Your task to perform on an android device: toggle javascript in the chrome app Image 0: 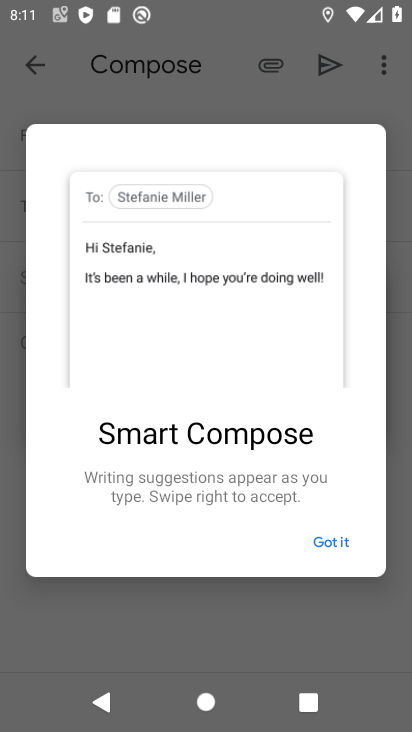
Step 0: press home button
Your task to perform on an android device: toggle javascript in the chrome app Image 1: 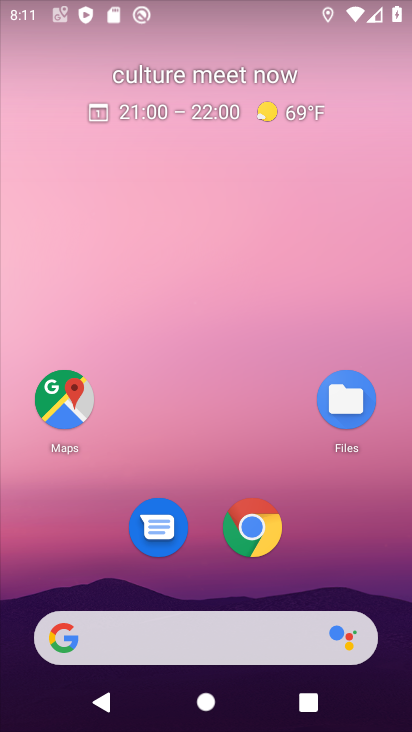
Step 1: click (248, 535)
Your task to perform on an android device: toggle javascript in the chrome app Image 2: 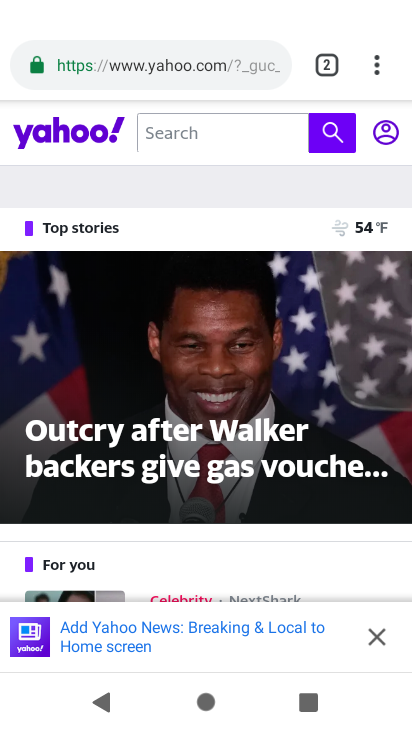
Step 2: click (369, 66)
Your task to perform on an android device: toggle javascript in the chrome app Image 3: 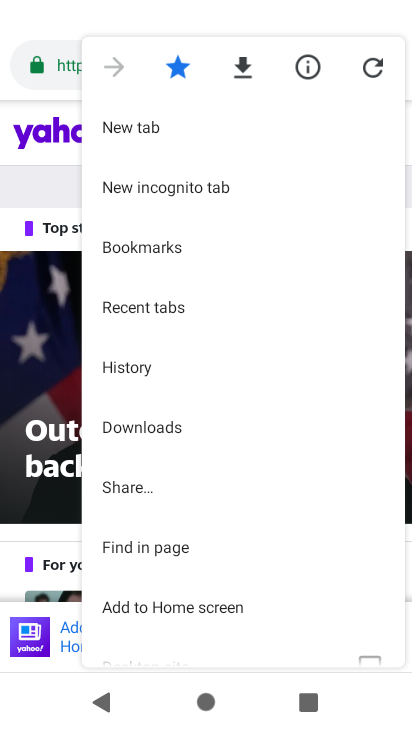
Step 3: drag from (187, 530) to (258, 159)
Your task to perform on an android device: toggle javascript in the chrome app Image 4: 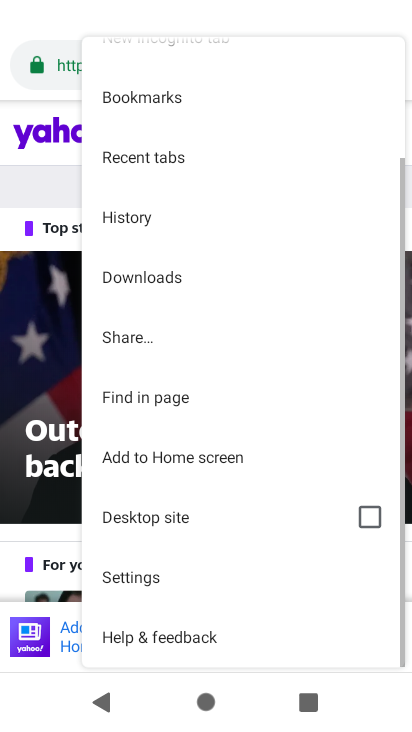
Step 4: click (178, 571)
Your task to perform on an android device: toggle javascript in the chrome app Image 5: 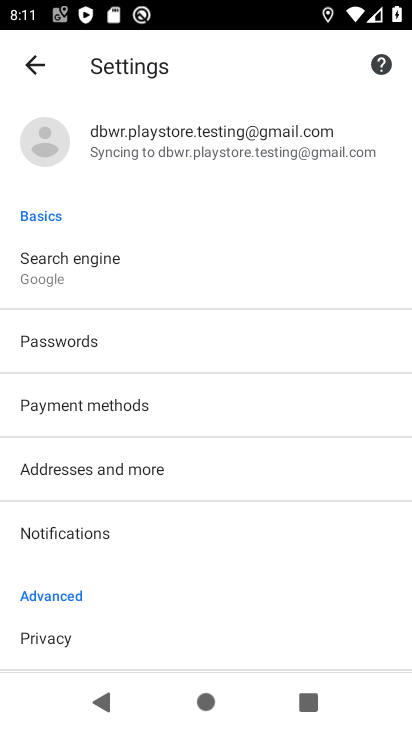
Step 5: drag from (132, 572) to (189, 185)
Your task to perform on an android device: toggle javascript in the chrome app Image 6: 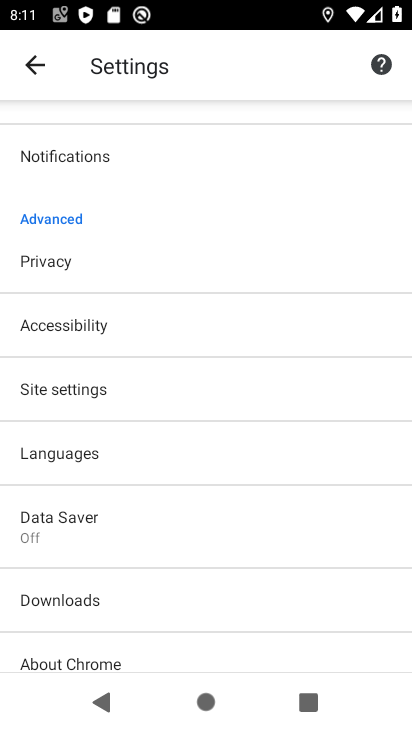
Step 6: click (106, 387)
Your task to perform on an android device: toggle javascript in the chrome app Image 7: 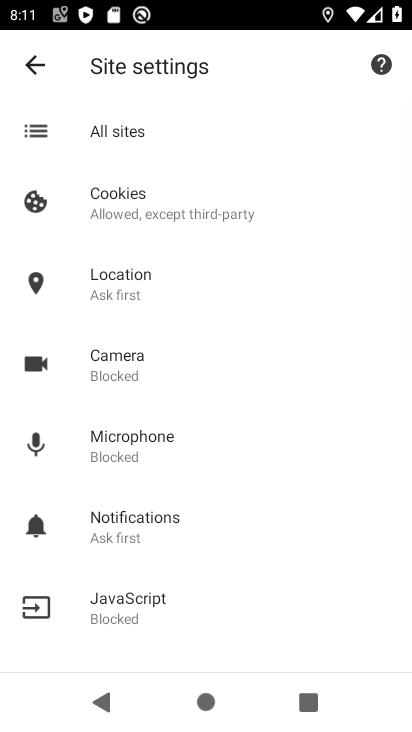
Step 7: click (151, 595)
Your task to perform on an android device: toggle javascript in the chrome app Image 8: 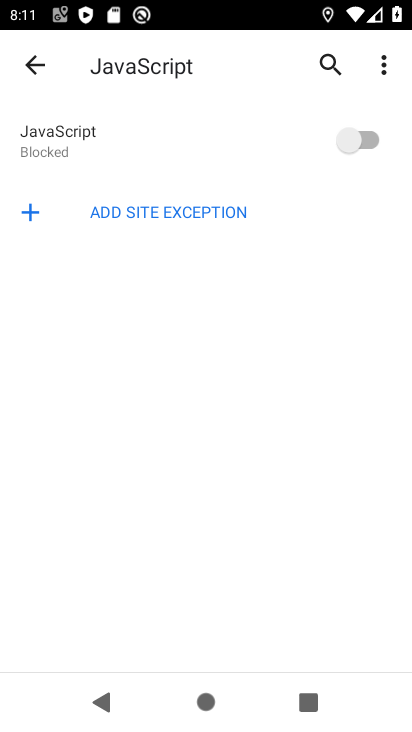
Step 8: click (354, 137)
Your task to perform on an android device: toggle javascript in the chrome app Image 9: 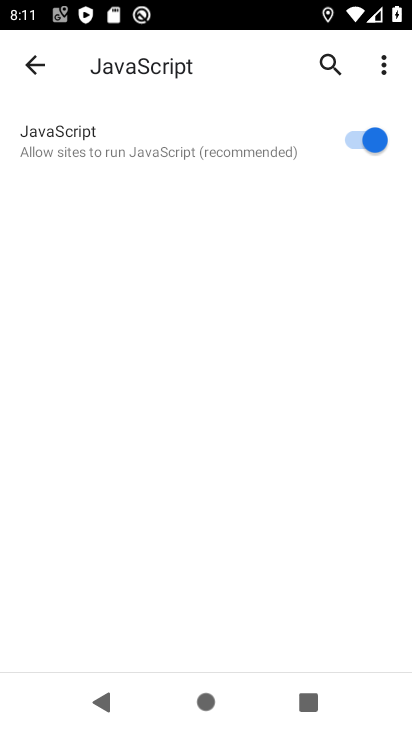
Step 9: task complete